Your task to perform on an android device: Is it going to rain today? Image 0: 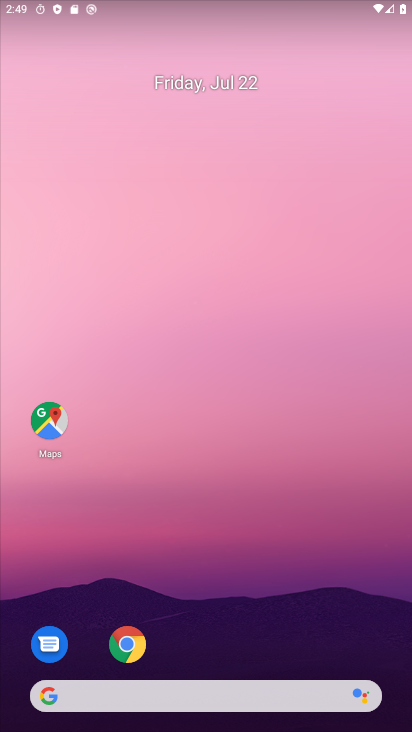
Step 0: press home button
Your task to perform on an android device: Is it going to rain today? Image 1: 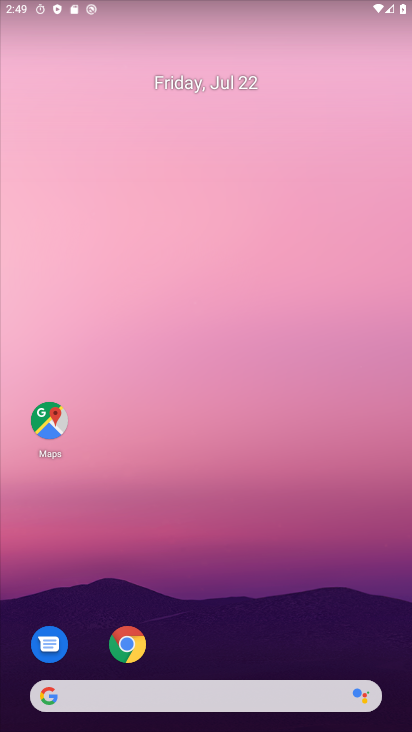
Step 1: click (51, 697)
Your task to perform on an android device: Is it going to rain today? Image 2: 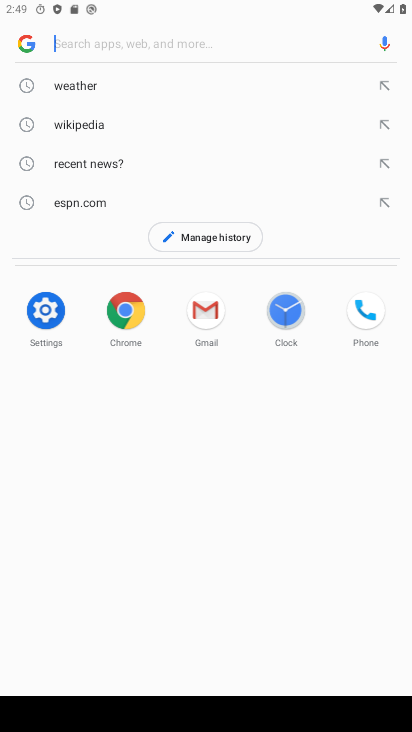
Step 2: type "rain today?"
Your task to perform on an android device: Is it going to rain today? Image 3: 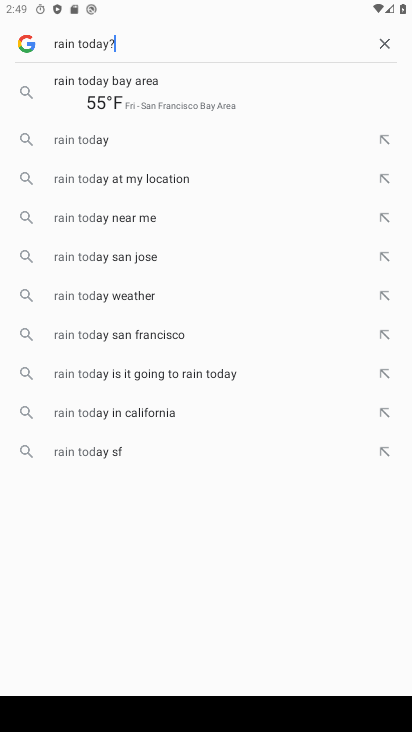
Step 3: press enter
Your task to perform on an android device: Is it going to rain today? Image 4: 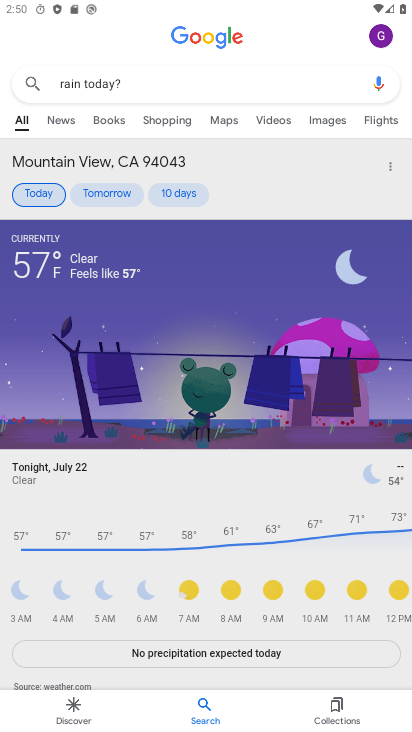
Step 4: task complete